Your task to perform on an android device: Go to calendar. Show me events next week Image 0: 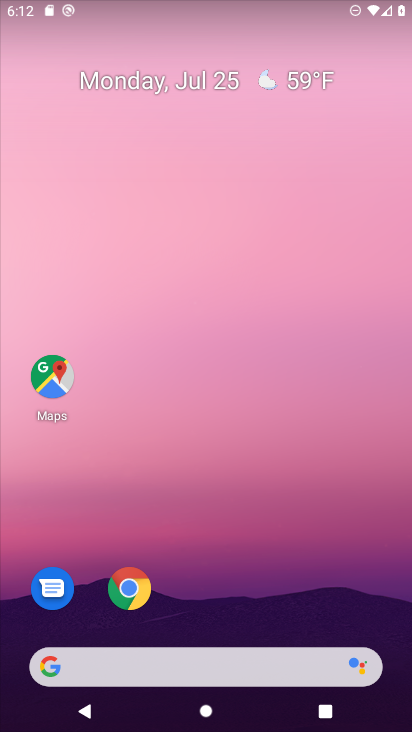
Step 0: drag from (306, 573) to (330, 74)
Your task to perform on an android device: Go to calendar. Show me events next week Image 1: 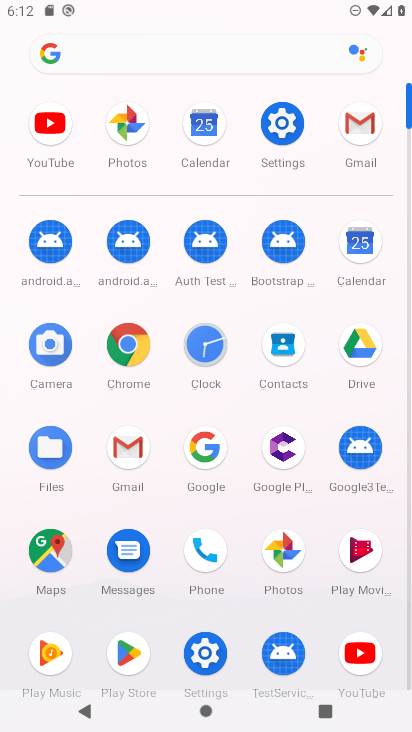
Step 1: click (356, 240)
Your task to perform on an android device: Go to calendar. Show me events next week Image 2: 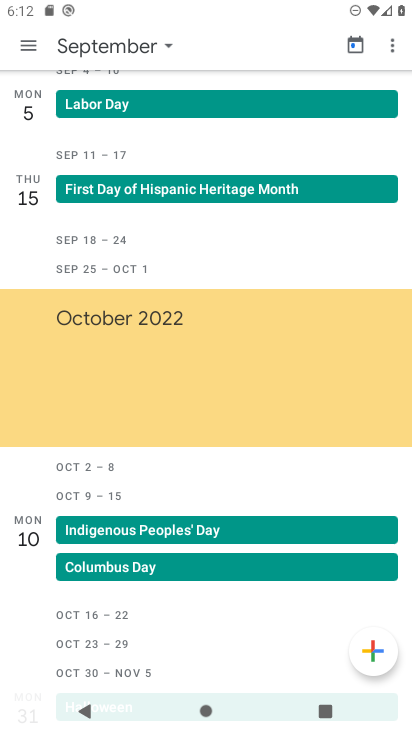
Step 2: task complete